Your task to perform on an android device: turn on the 24-hour format for clock Image 0: 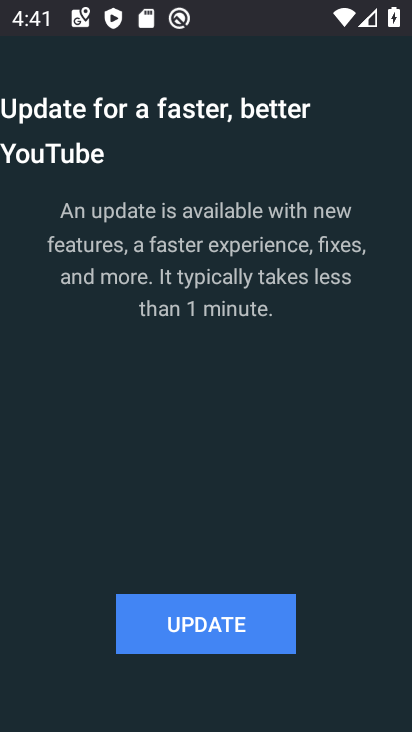
Step 0: drag from (329, 391) to (324, 291)
Your task to perform on an android device: turn on the 24-hour format for clock Image 1: 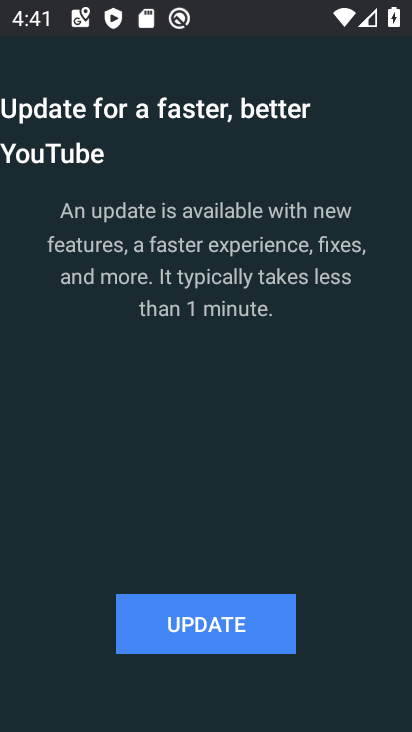
Step 1: press home button
Your task to perform on an android device: turn on the 24-hour format for clock Image 2: 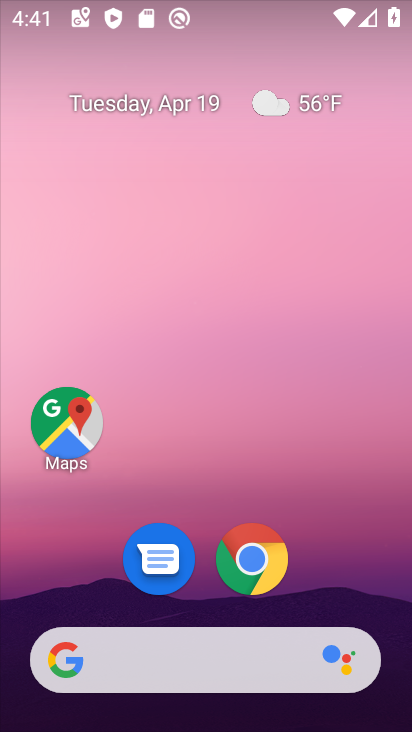
Step 2: drag from (336, 562) to (271, 186)
Your task to perform on an android device: turn on the 24-hour format for clock Image 3: 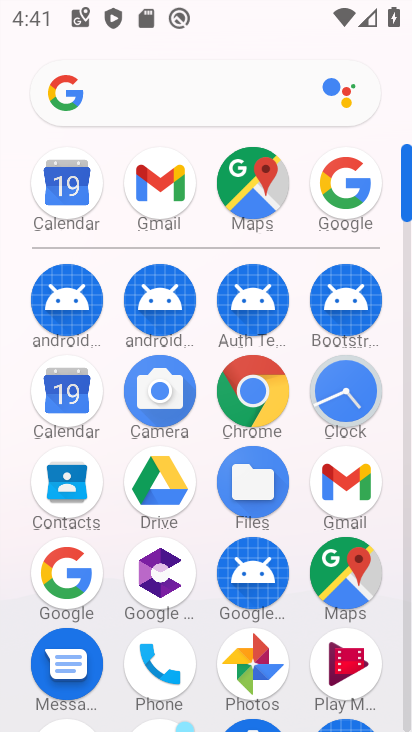
Step 3: click (329, 393)
Your task to perform on an android device: turn on the 24-hour format for clock Image 4: 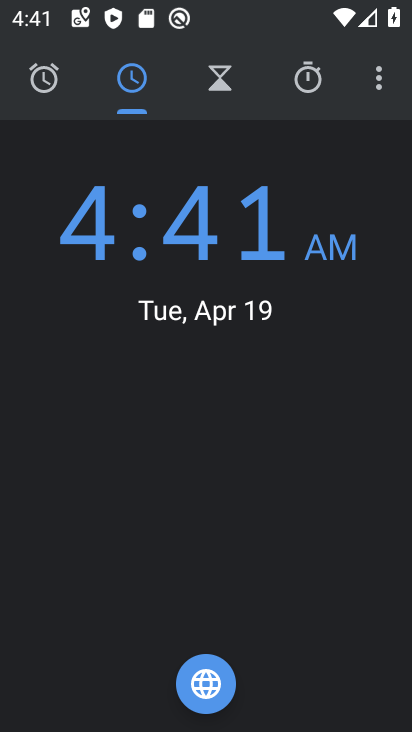
Step 4: click (377, 77)
Your task to perform on an android device: turn on the 24-hour format for clock Image 5: 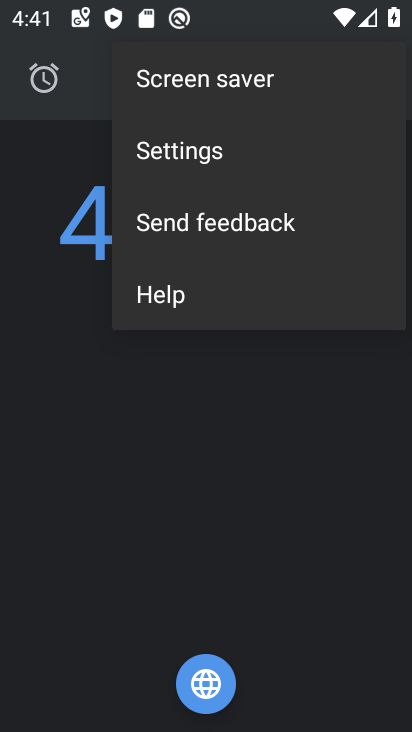
Step 5: click (176, 149)
Your task to perform on an android device: turn on the 24-hour format for clock Image 6: 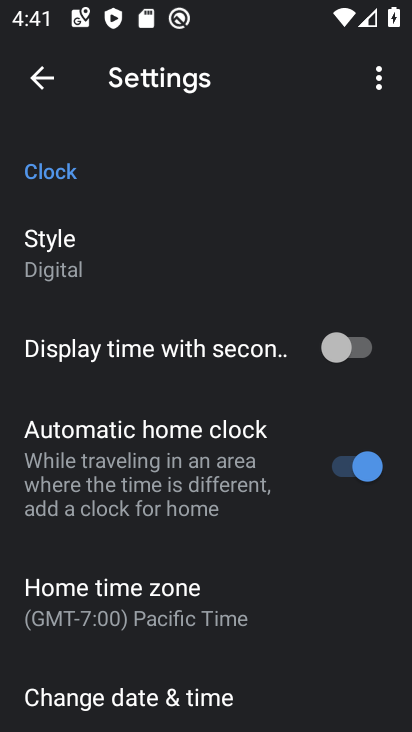
Step 6: drag from (270, 651) to (230, 243)
Your task to perform on an android device: turn on the 24-hour format for clock Image 7: 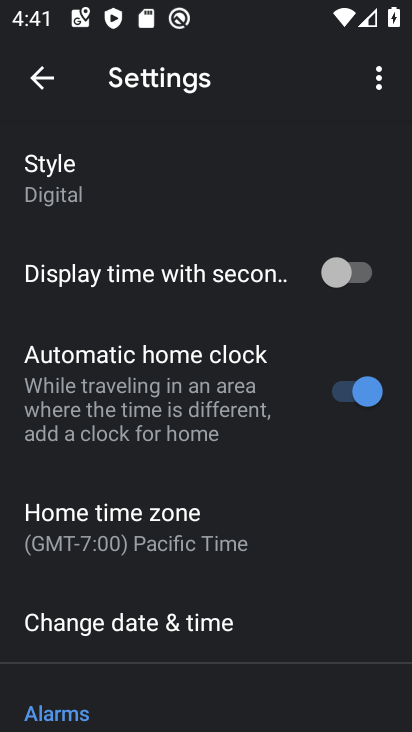
Step 7: drag from (239, 575) to (185, 267)
Your task to perform on an android device: turn on the 24-hour format for clock Image 8: 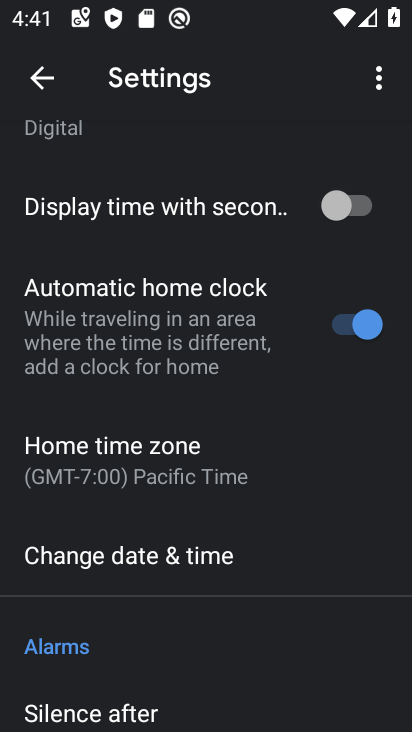
Step 8: drag from (189, 368) to (176, 291)
Your task to perform on an android device: turn on the 24-hour format for clock Image 9: 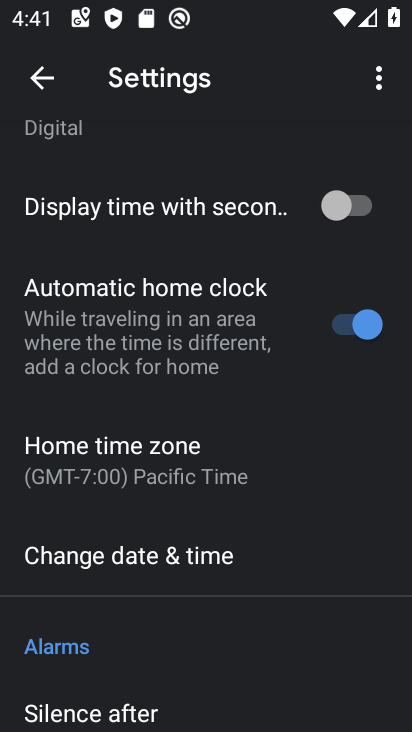
Step 9: click (131, 556)
Your task to perform on an android device: turn on the 24-hour format for clock Image 10: 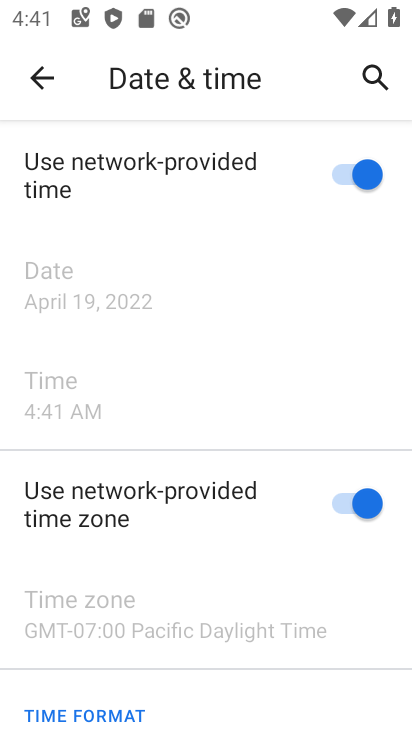
Step 10: drag from (240, 579) to (203, 359)
Your task to perform on an android device: turn on the 24-hour format for clock Image 11: 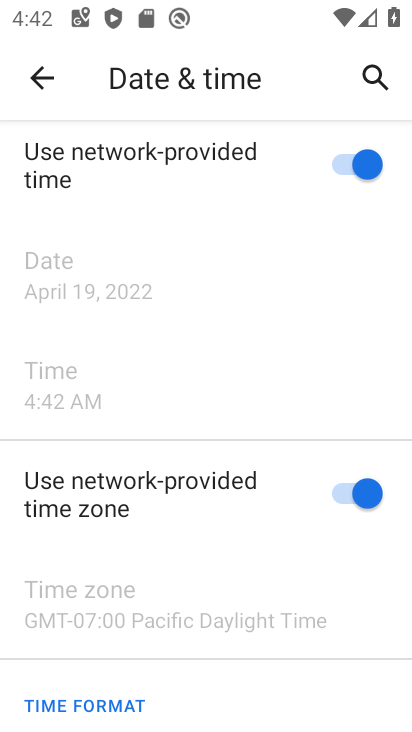
Step 11: click (337, 492)
Your task to perform on an android device: turn on the 24-hour format for clock Image 12: 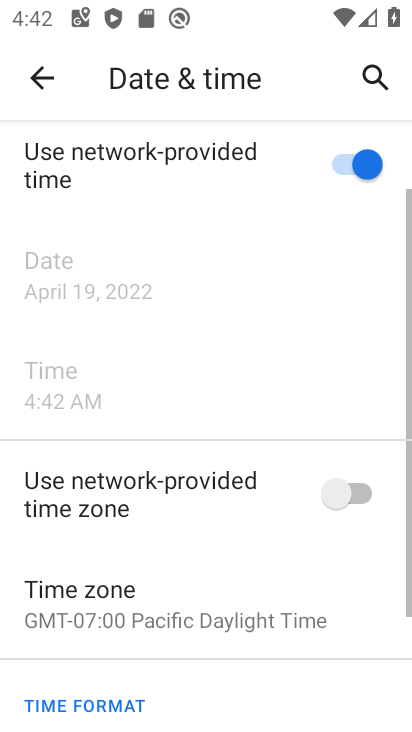
Step 12: click (363, 491)
Your task to perform on an android device: turn on the 24-hour format for clock Image 13: 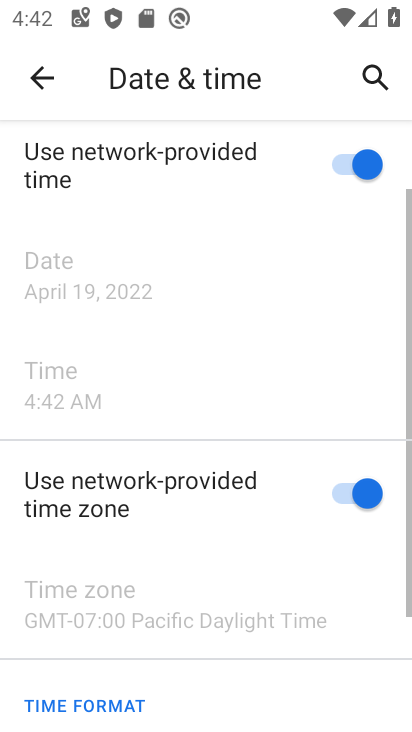
Step 13: drag from (220, 493) to (194, 302)
Your task to perform on an android device: turn on the 24-hour format for clock Image 14: 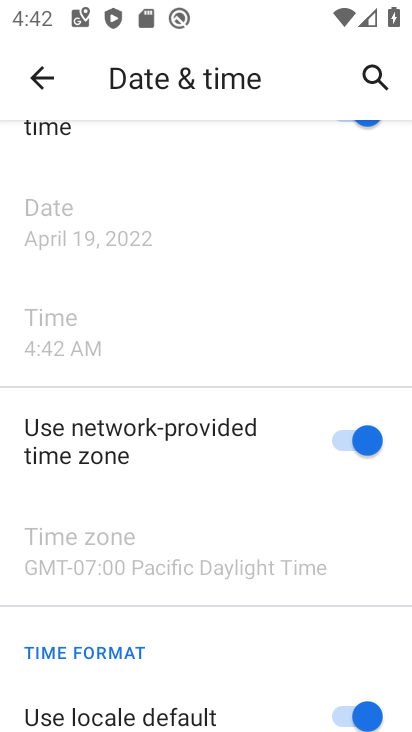
Step 14: drag from (235, 671) to (202, 323)
Your task to perform on an android device: turn on the 24-hour format for clock Image 15: 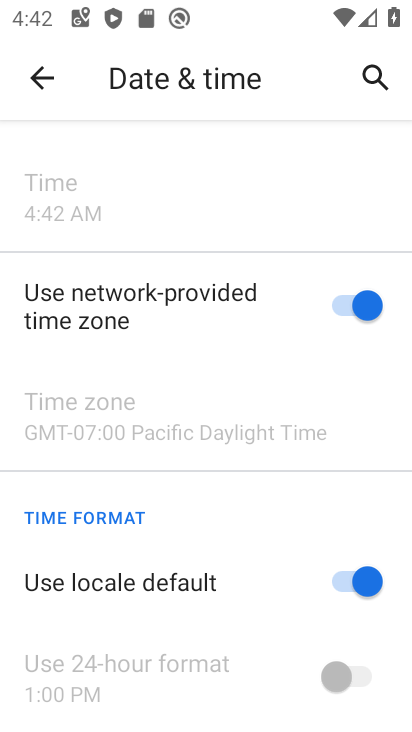
Step 15: drag from (208, 438) to (195, 271)
Your task to perform on an android device: turn on the 24-hour format for clock Image 16: 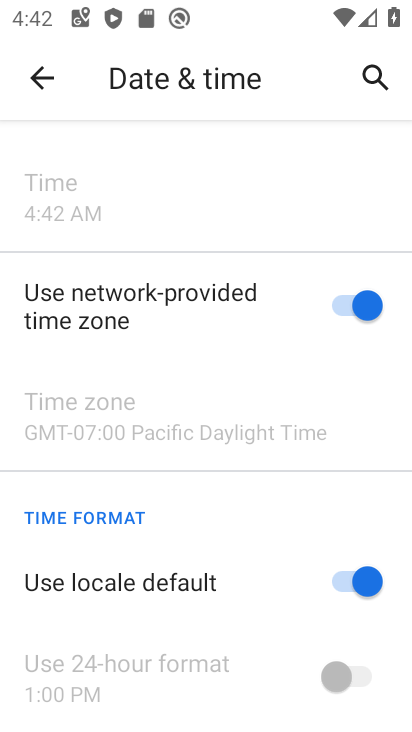
Step 16: click (338, 581)
Your task to perform on an android device: turn on the 24-hour format for clock Image 17: 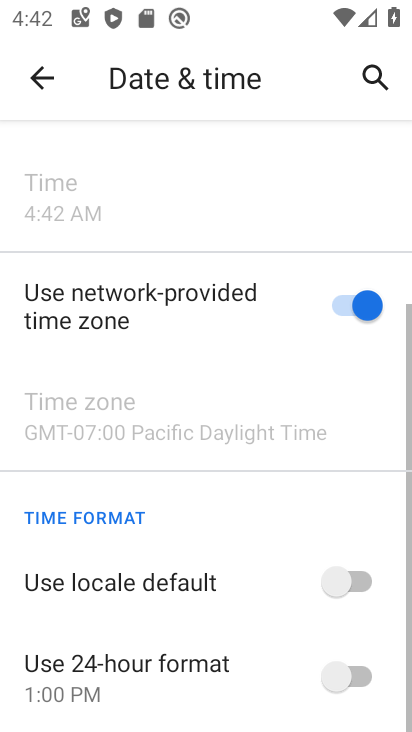
Step 17: click (350, 677)
Your task to perform on an android device: turn on the 24-hour format for clock Image 18: 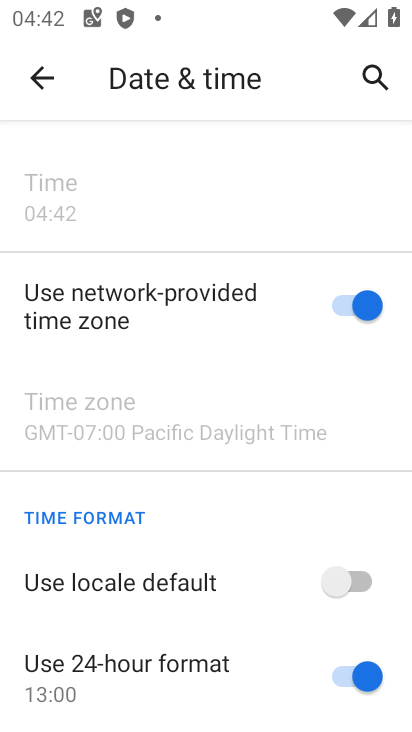
Step 18: task complete